Your task to perform on an android device: open app "Move to iOS" Image 0: 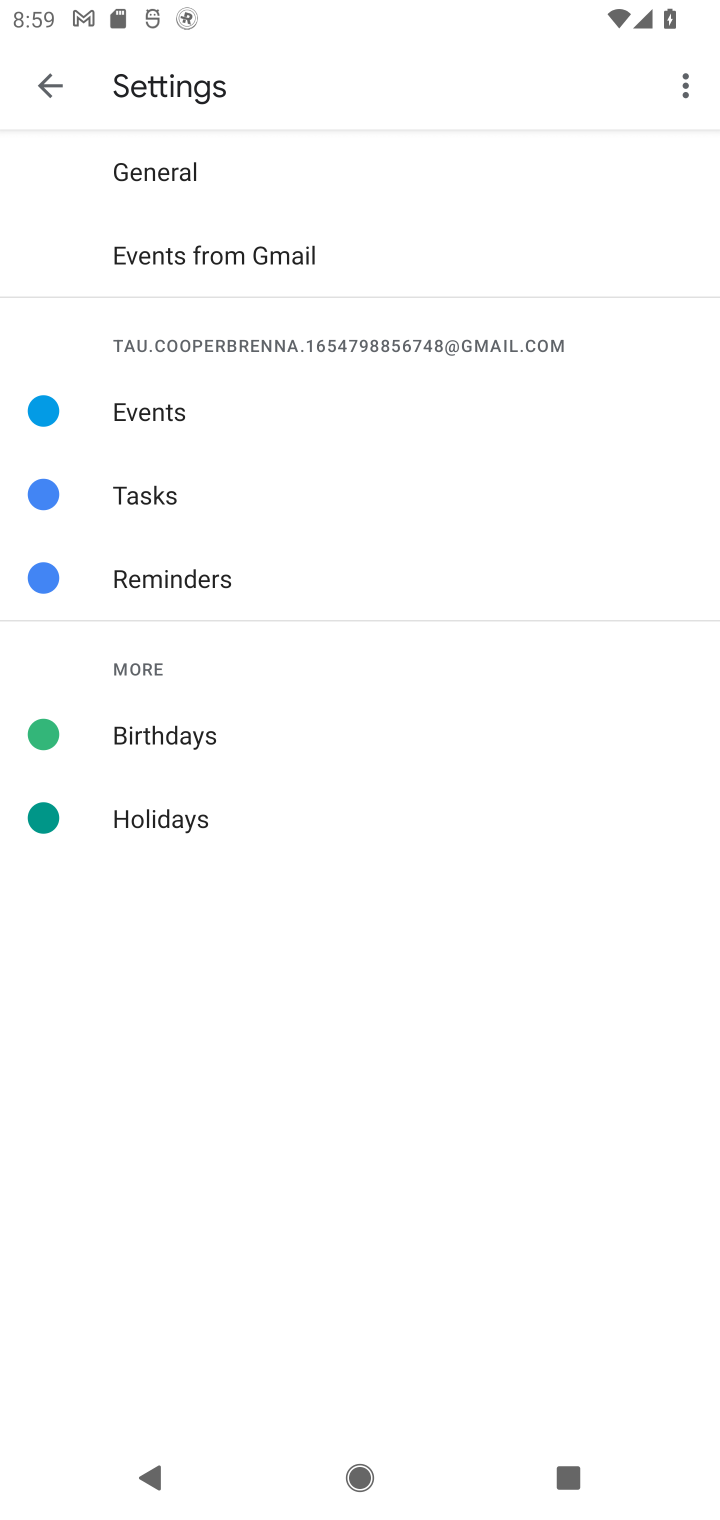
Step 0: press home button
Your task to perform on an android device: open app "Move to iOS" Image 1: 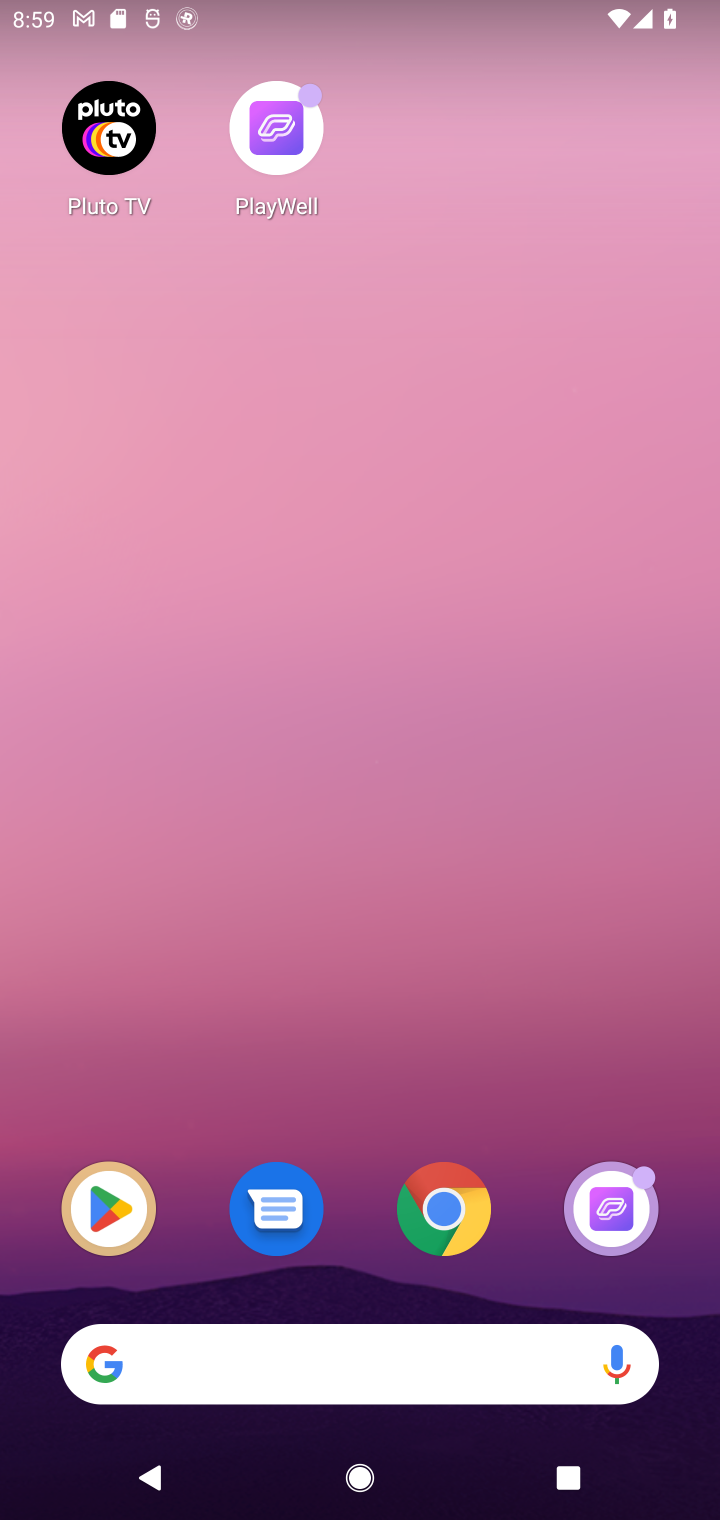
Step 1: drag from (291, 1363) to (347, 8)
Your task to perform on an android device: open app "Move to iOS" Image 2: 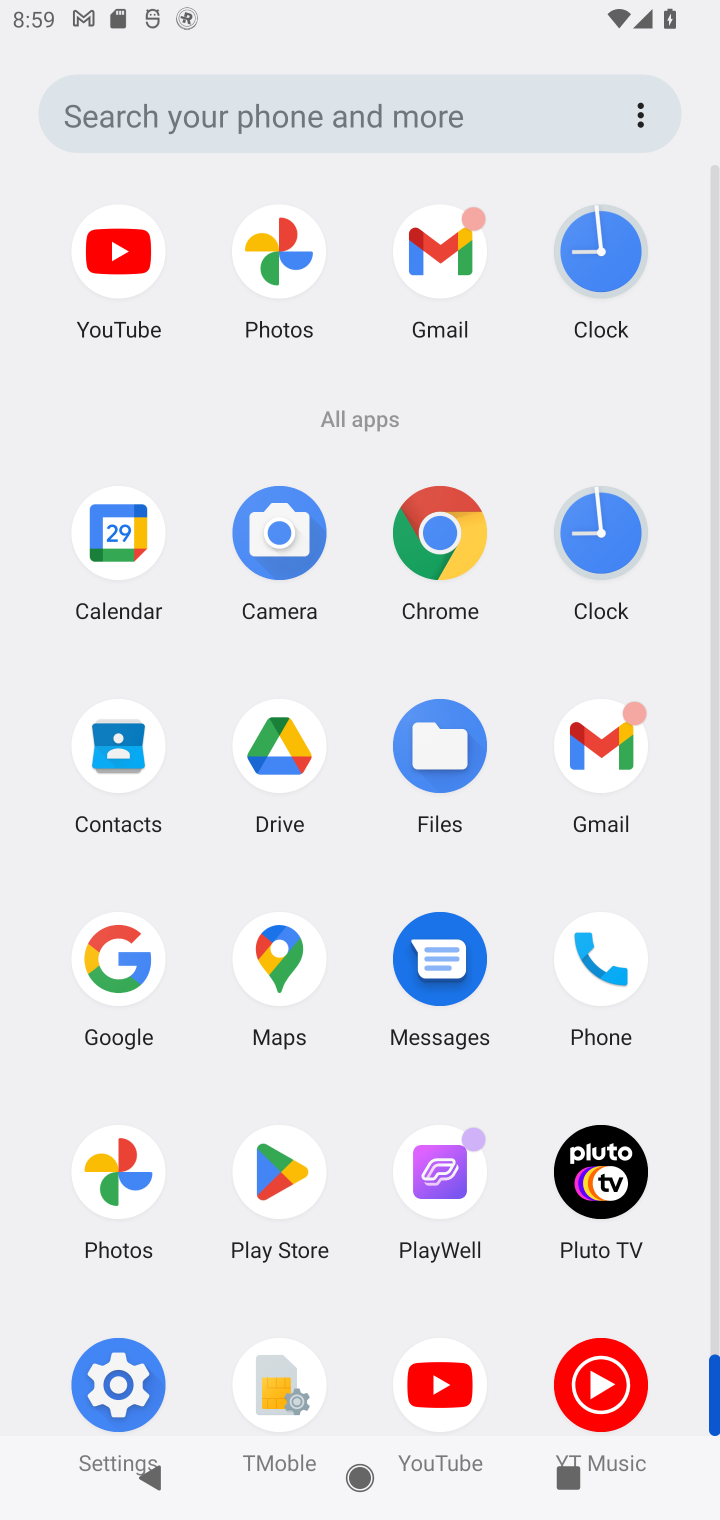
Step 2: click (291, 1175)
Your task to perform on an android device: open app "Move to iOS" Image 3: 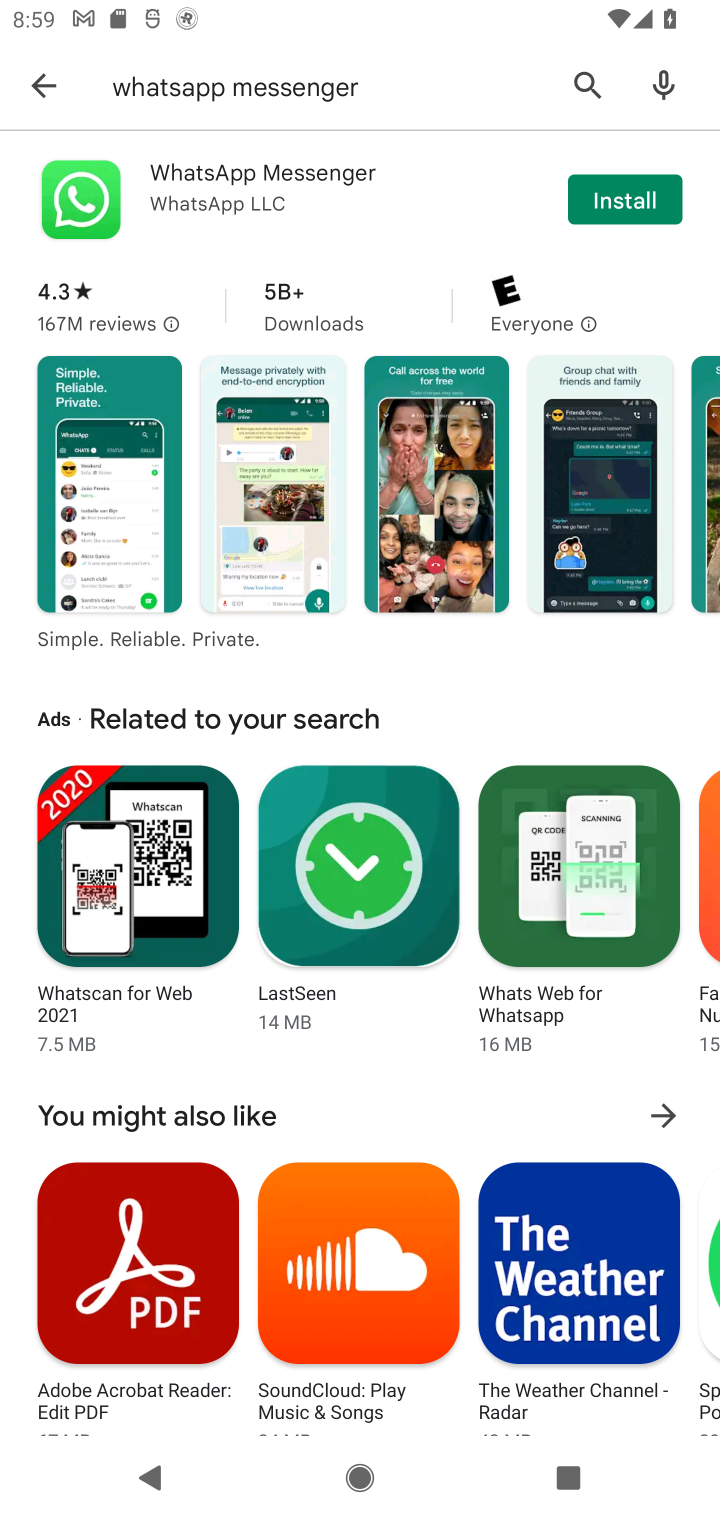
Step 3: click (576, 80)
Your task to perform on an android device: open app "Move to iOS" Image 4: 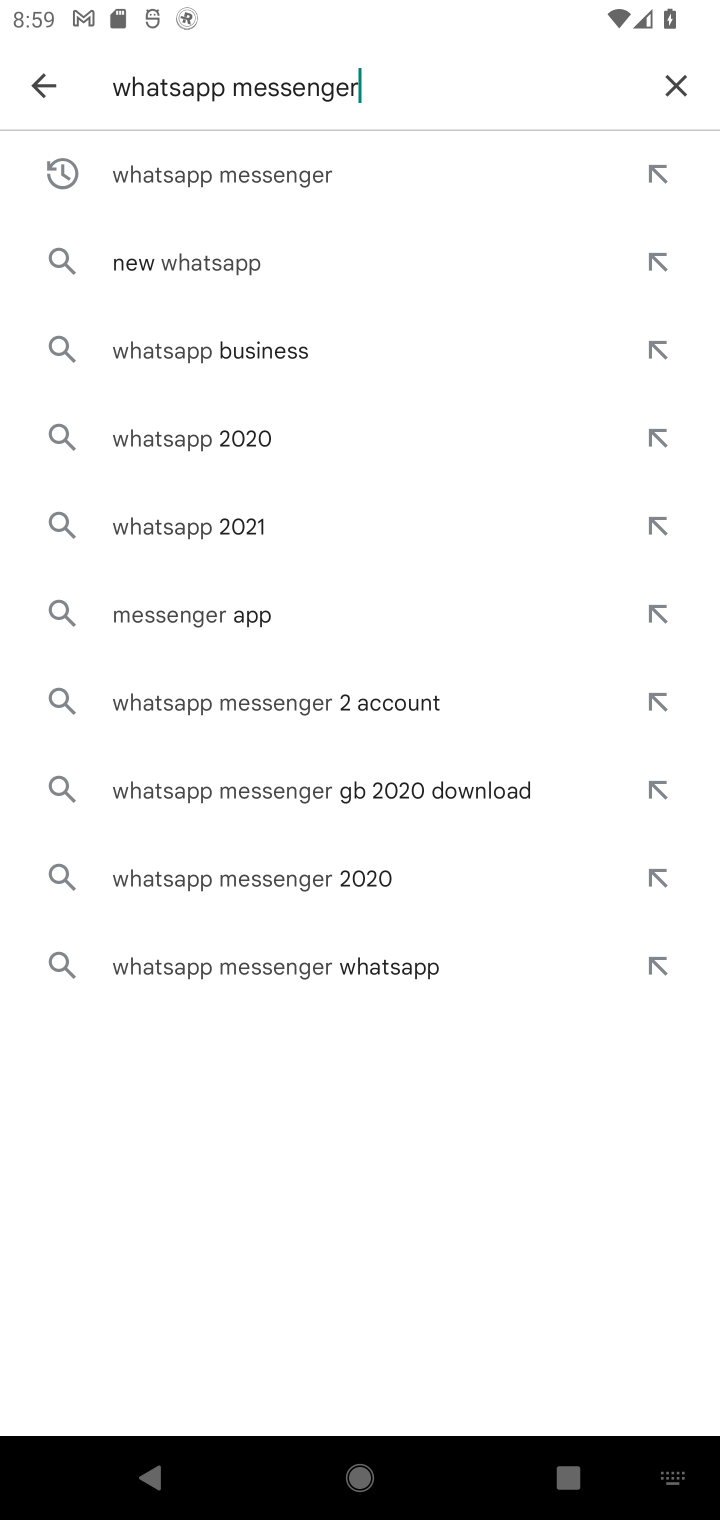
Step 4: click (678, 81)
Your task to perform on an android device: open app "Move to iOS" Image 5: 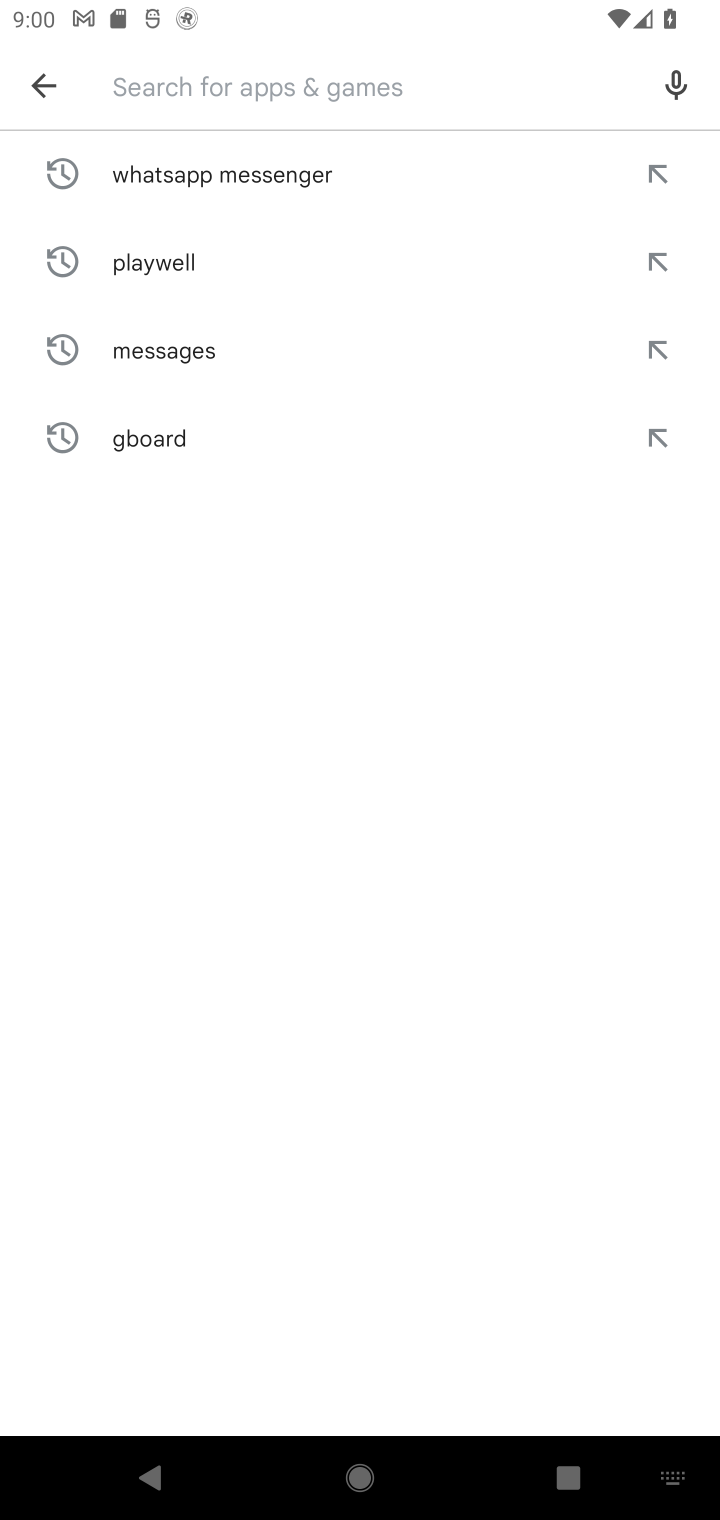
Step 5: type "Move to iOS"
Your task to perform on an android device: open app "Move to iOS" Image 6: 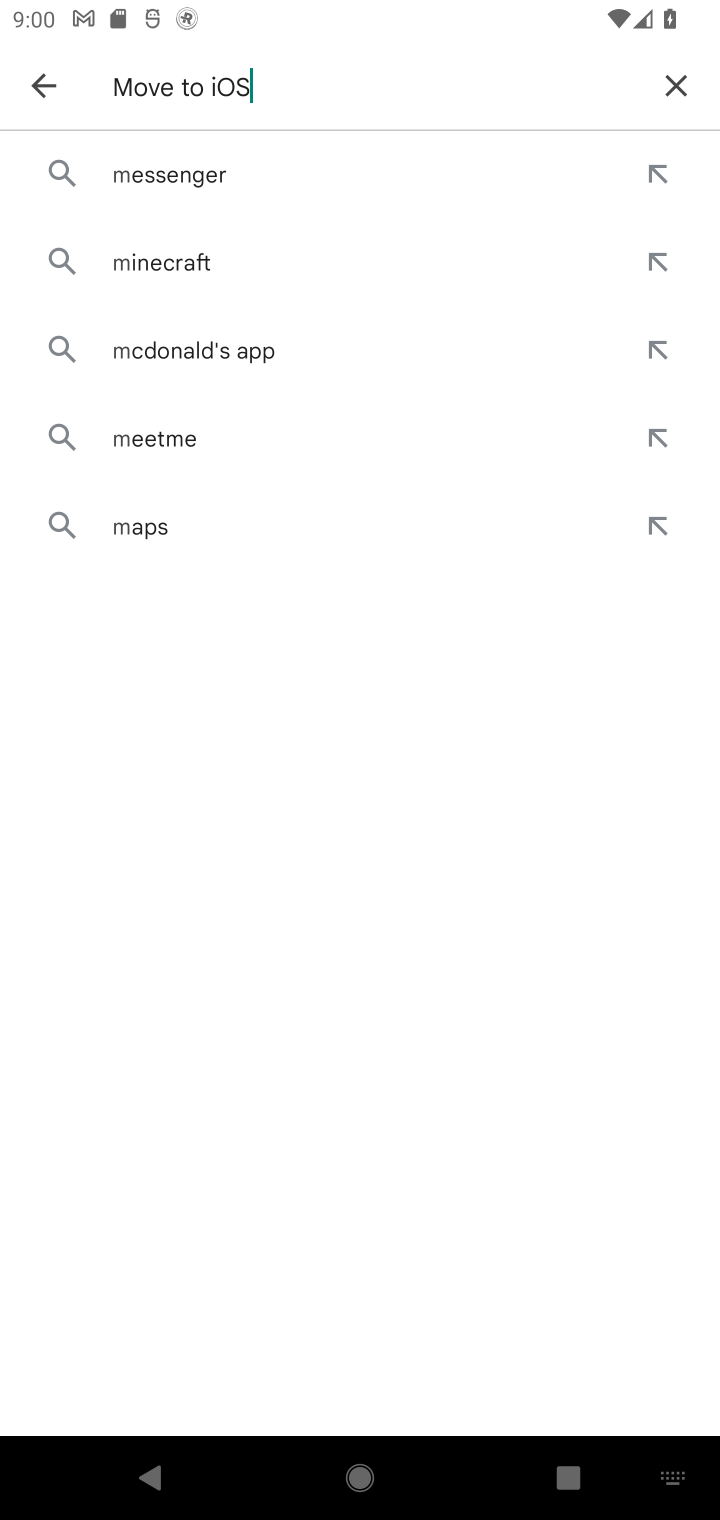
Step 6: type ""
Your task to perform on an android device: open app "Move to iOS" Image 7: 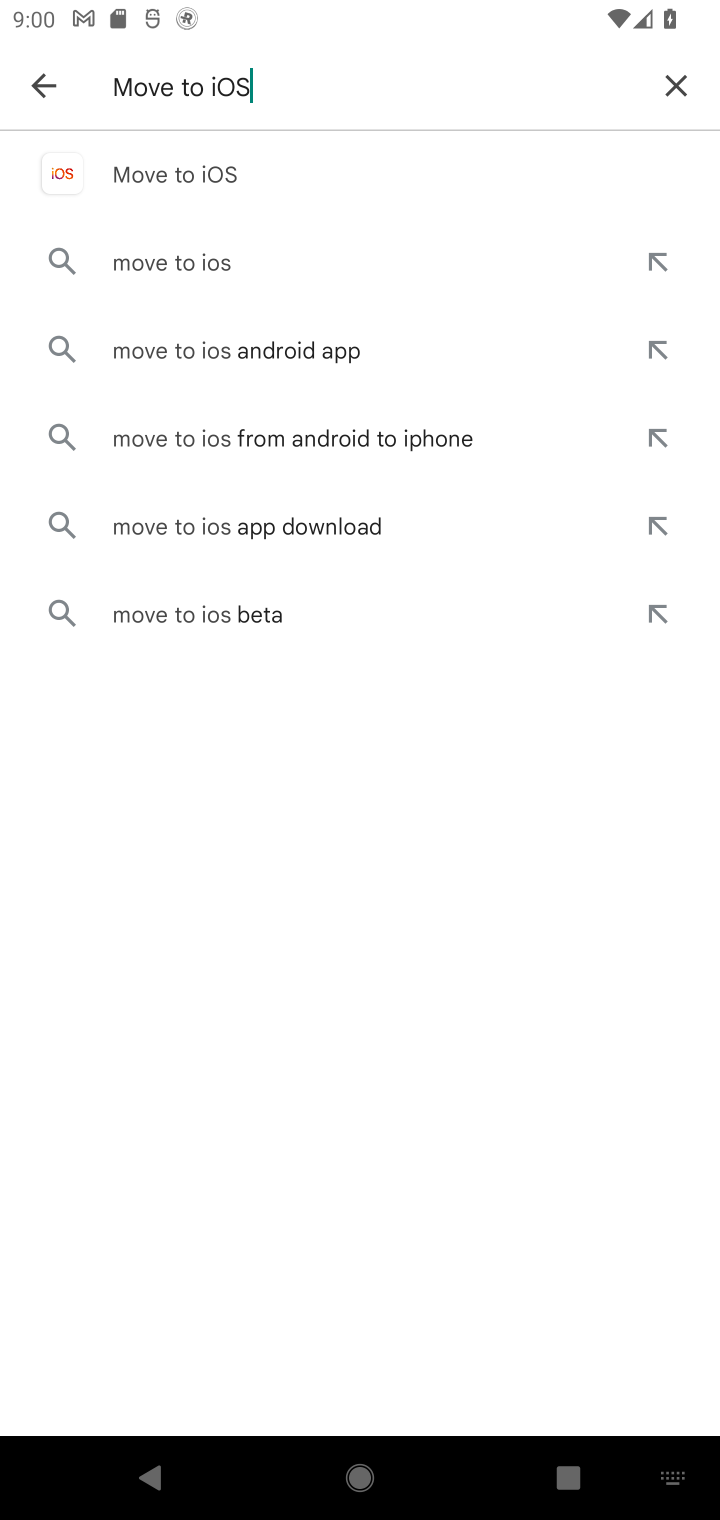
Step 7: click (233, 180)
Your task to perform on an android device: open app "Move to iOS" Image 8: 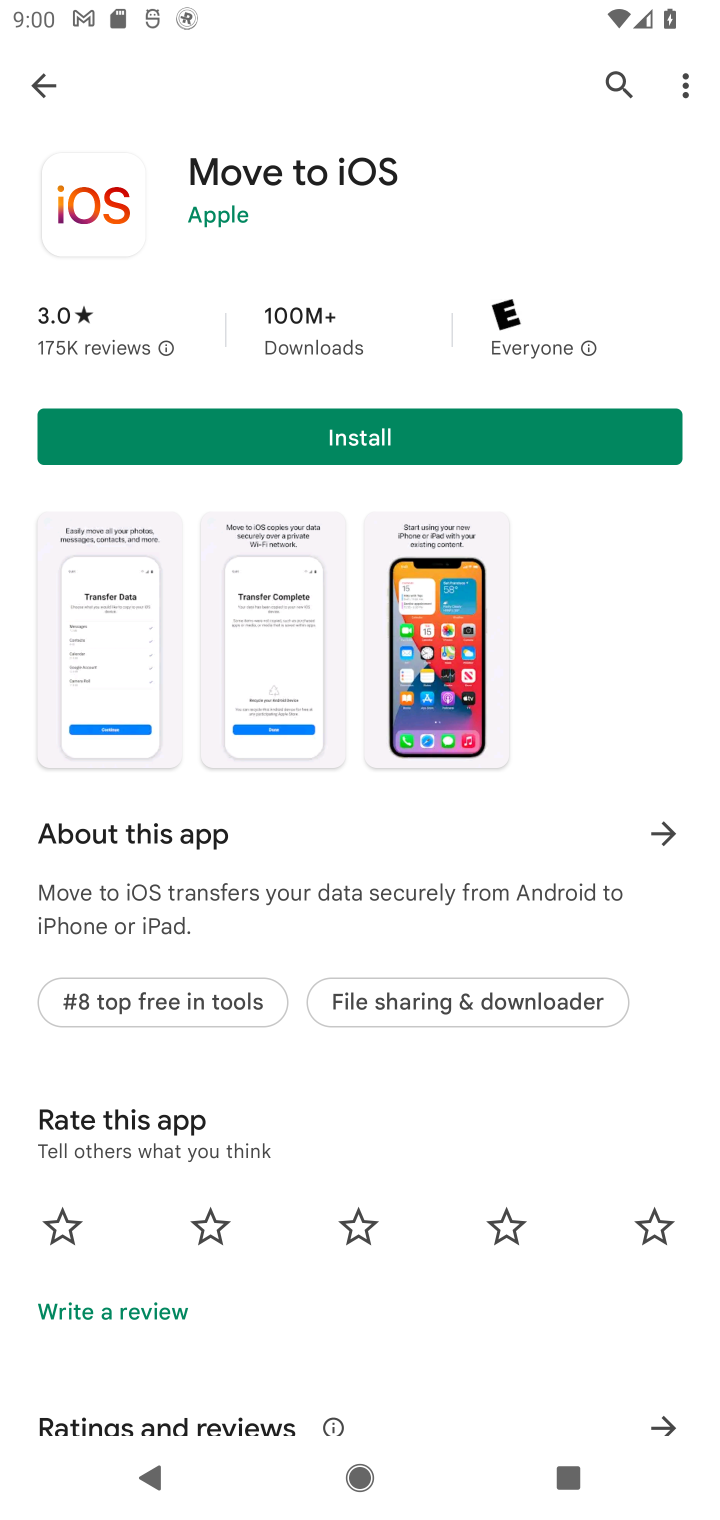
Step 8: task complete